Your task to perform on an android device: star an email in the gmail app Image 0: 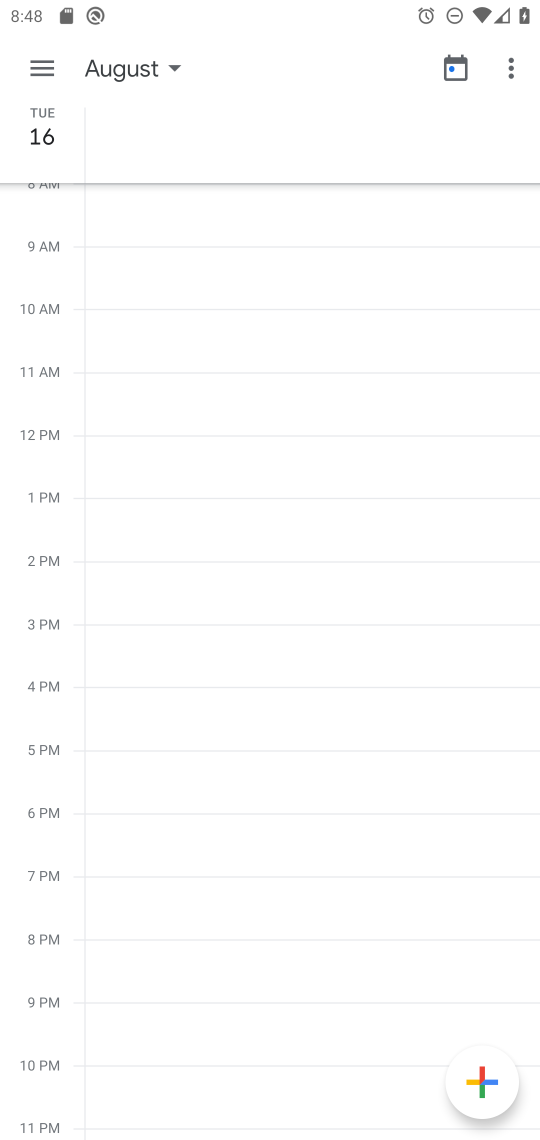
Step 0: press home button
Your task to perform on an android device: star an email in the gmail app Image 1: 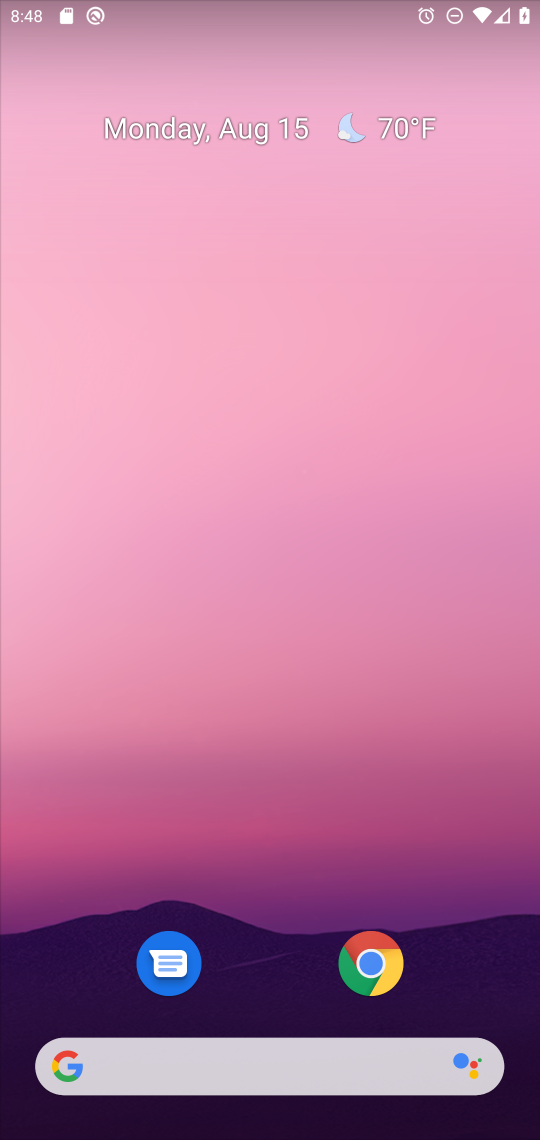
Step 1: drag from (254, 959) to (266, 145)
Your task to perform on an android device: star an email in the gmail app Image 2: 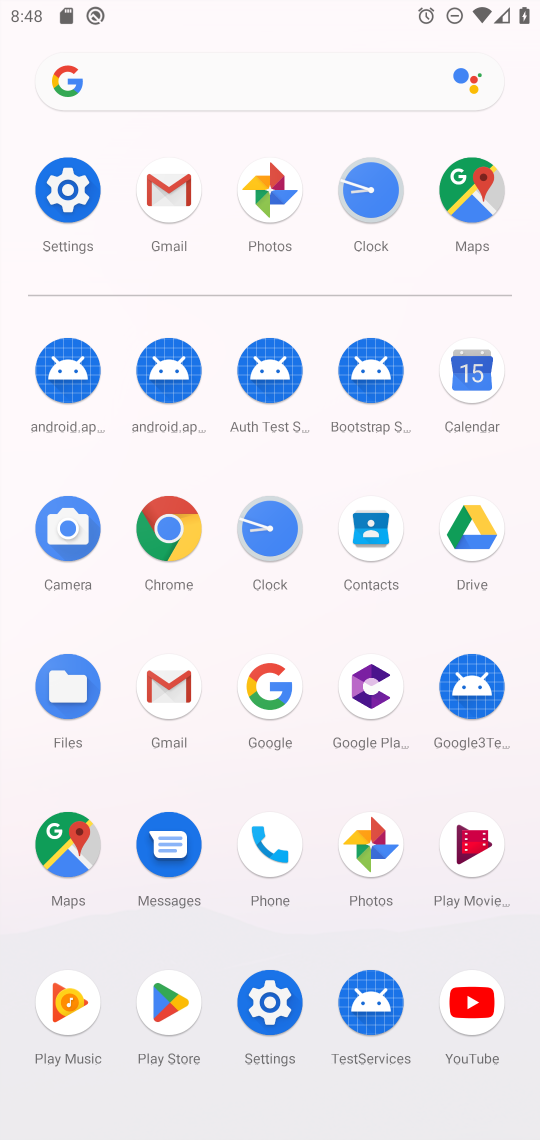
Step 2: click (150, 191)
Your task to perform on an android device: star an email in the gmail app Image 3: 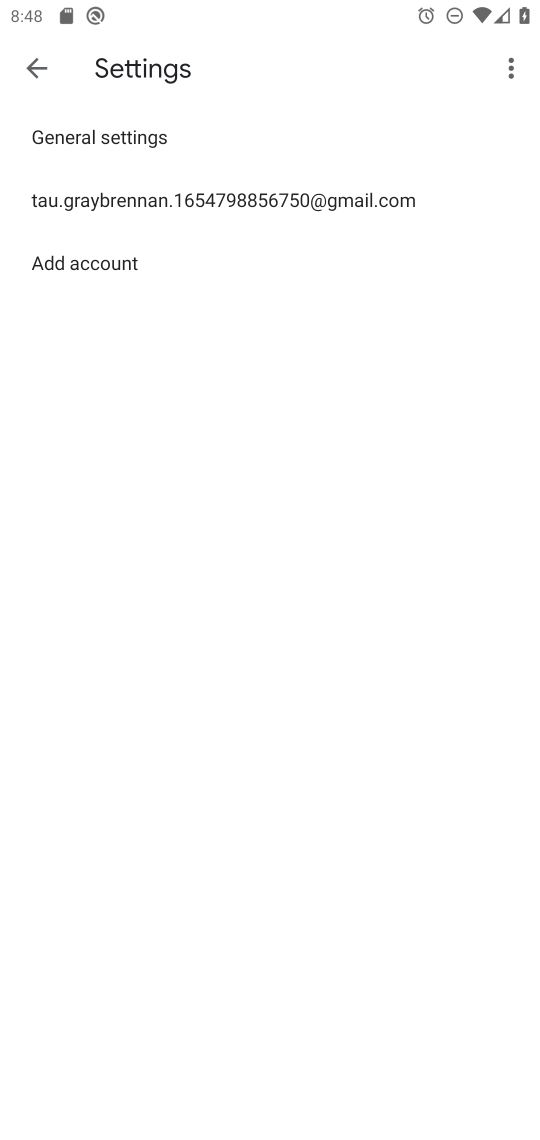
Step 3: click (25, 80)
Your task to perform on an android device: star an email in the gmail app Image 4: 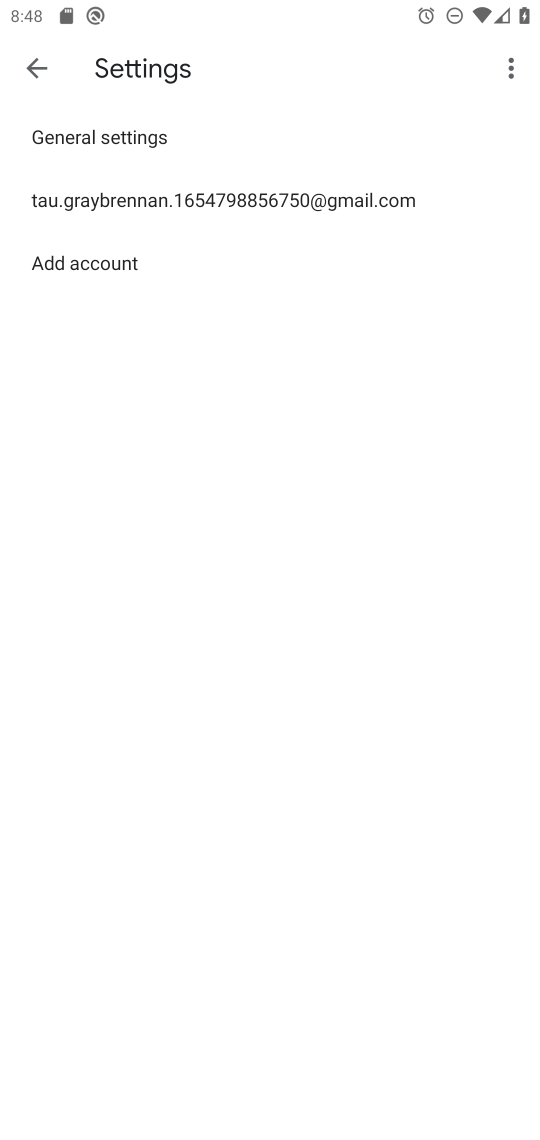
Step 4: click (43, 83)
Your task to perform on an android device: star an email in the gmail app Image 5: 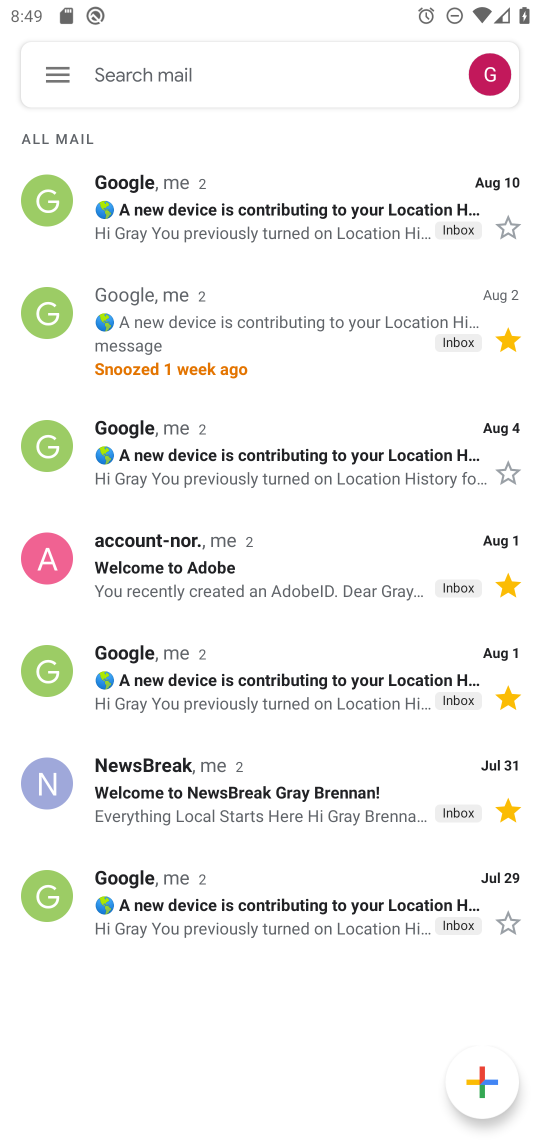
Step 5: click (524, 464)
Your task to perform on an android device: star an email in the gmail app Image 6: 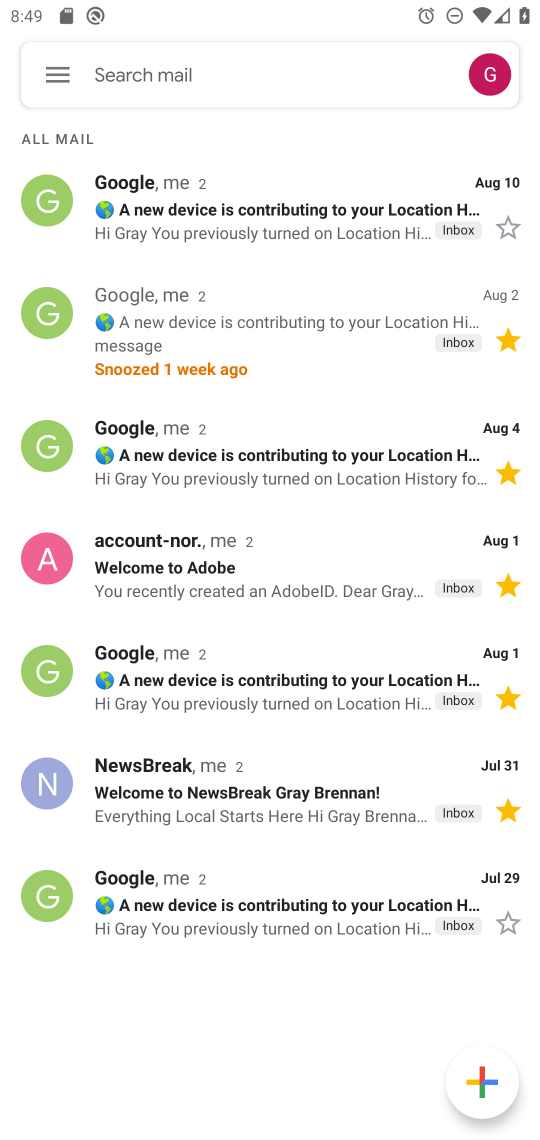
Step 6: task complete